Your task to perform on an android device: Open Wikipedia Image 0: 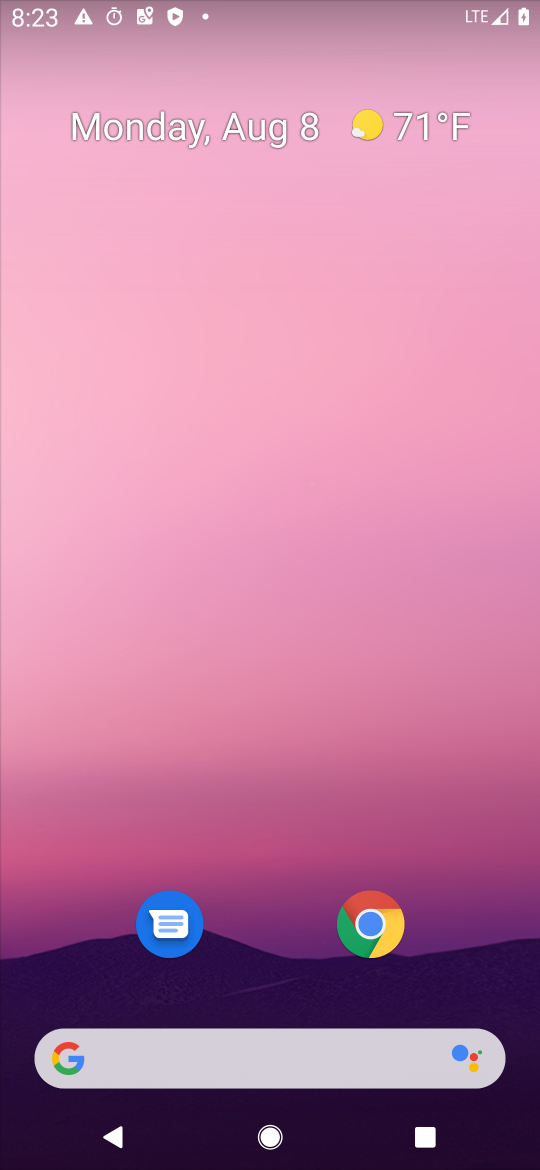
Step 0: drag from (330, 835) to (398, 502)
Your task to perform on an android device: Open Wikipedia Image 1: 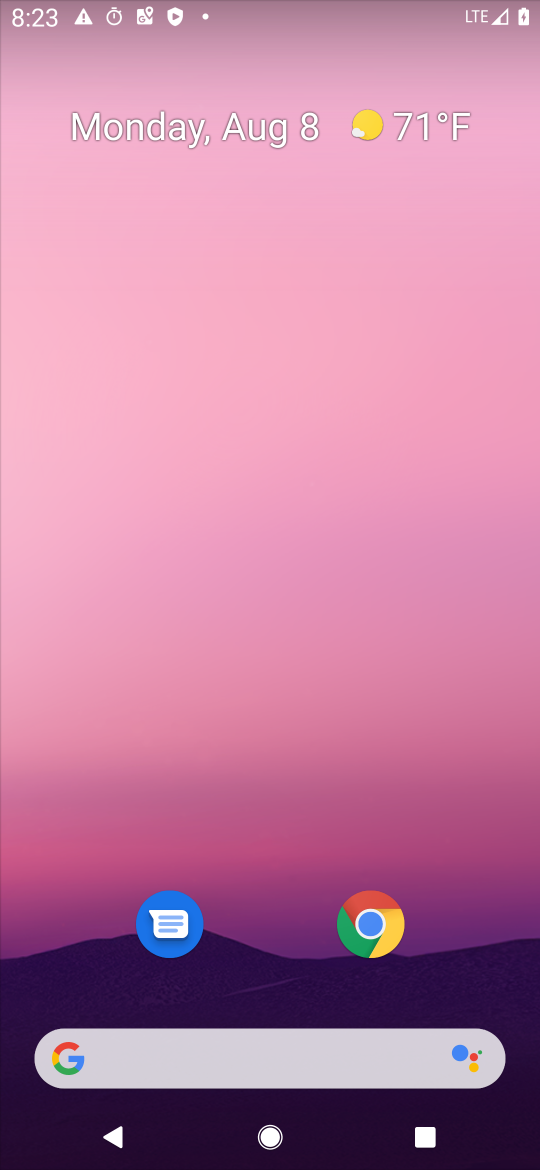
Step 1: drag from (263, 848) to (222, 96)
Your task to perform on an android device: Open Wikipedia Image 2: 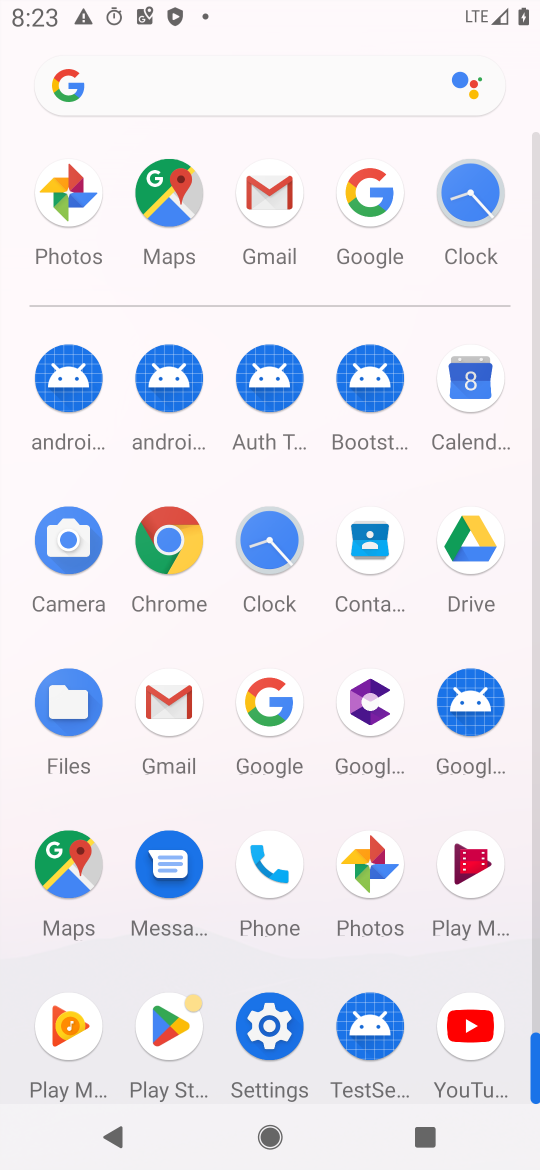
Step 2: drag from (320, 916) to (342, 171)
Your task to perform on an android device: Open Wikipedia Image 3: 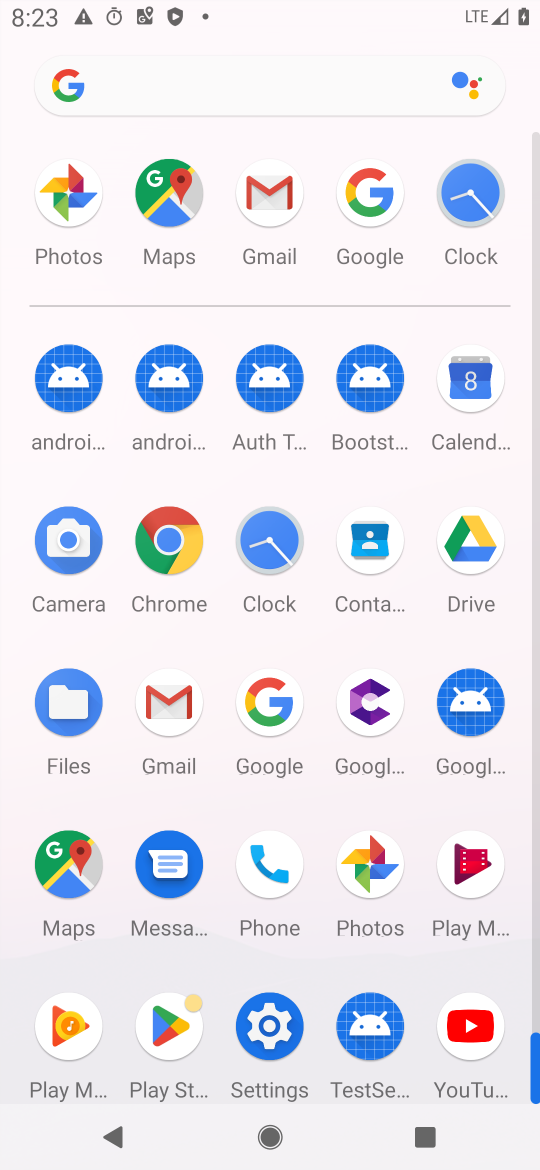
Step 3: click (160, 541)
Your task to perform on an android device: Open Wikipedia Image 4: 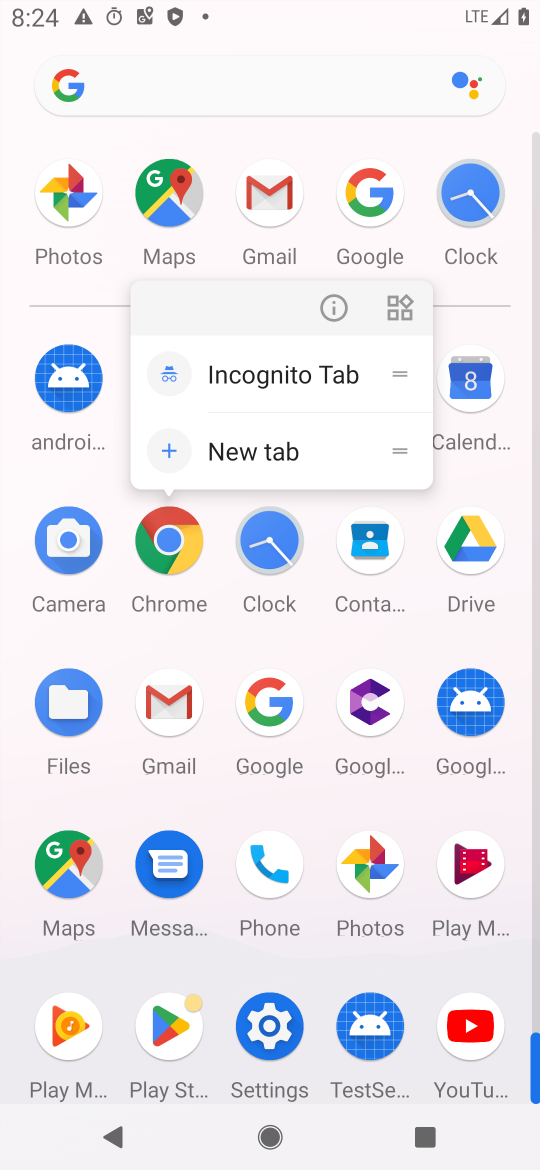
Step 4: click (347, 303)
Your task to perform on an android device: Open Wikipedia Image 5: 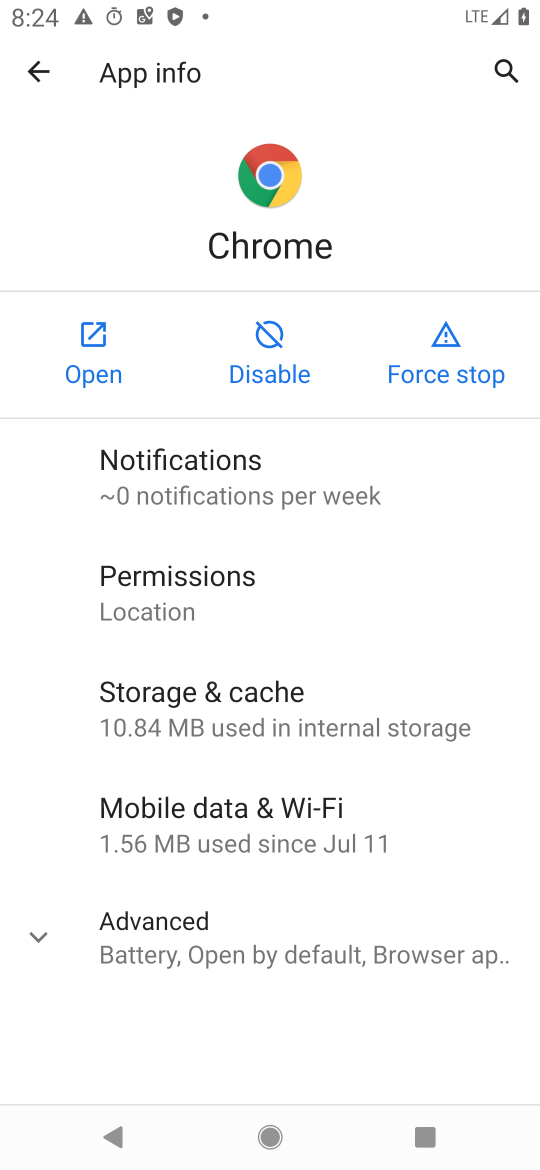
Step 5: click (88, 375)
Your task to perform on an android device: Open Wikipedia Image 6: 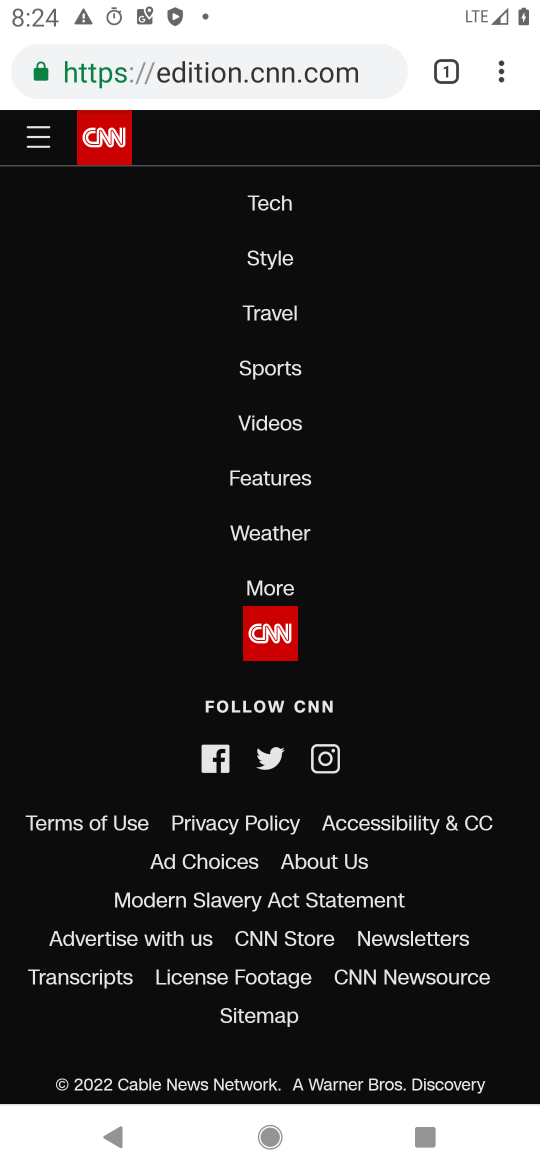
Step 6: click (257, 71)
Your task to perform on an android device: Open Wikipedia Image 7: 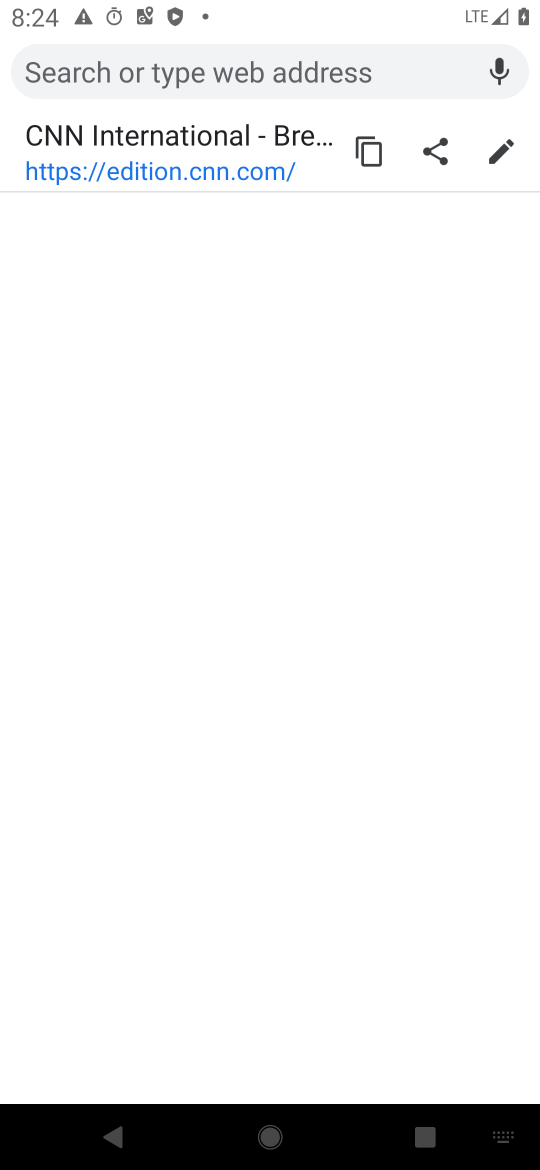
Step 7: type "wikipedia"
Your task to perform on an android device: Open Wikipedia Image 8: 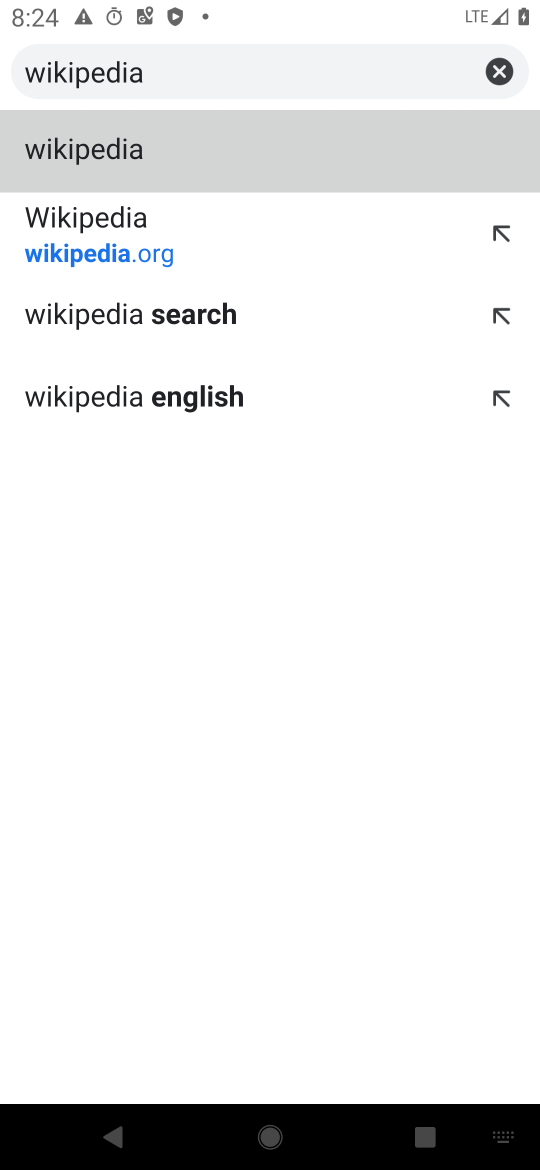
Step 8: click (47, 206)
Your task to perform on an android device: Open Wikipedia Image 9: 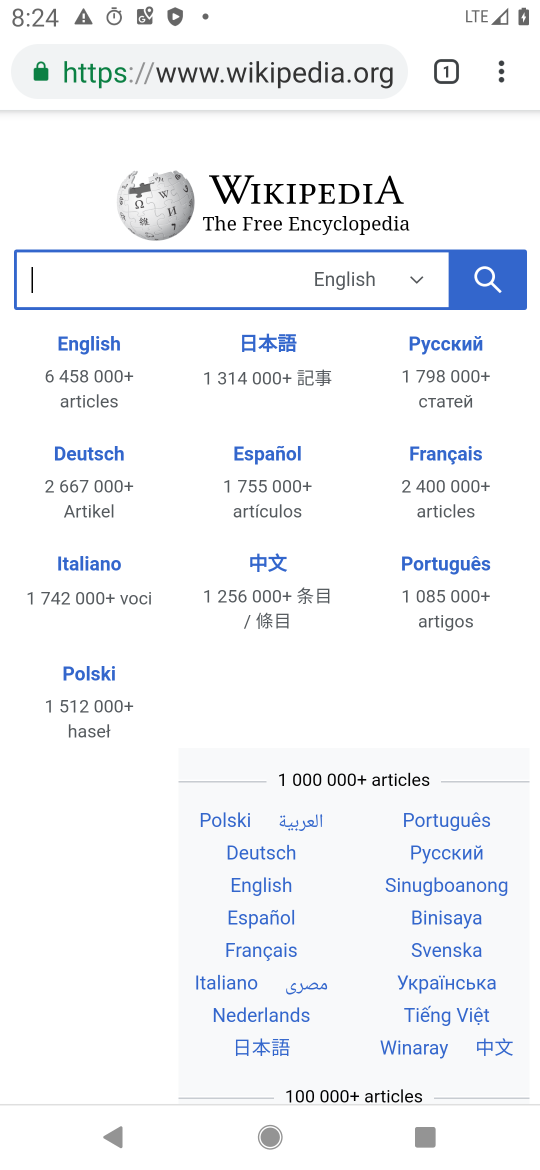
Step 9: task complete